Your task to perform on an android device: Clear all items from cart on ebay.com. Search for alienware area 51 on ebay.com, select the first entry, and add it to the cart. Image 0: 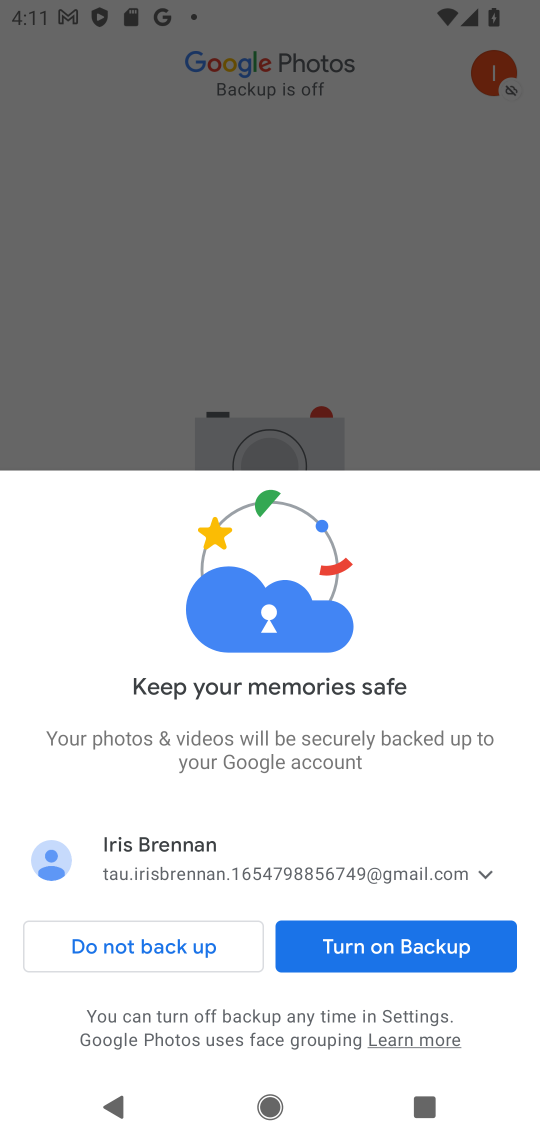
Step 0: press home button
Your task to perform on an android device: Clear all items from cart on ebay.com. Search for alienware area 51 on ebay.com, select the first entry, and add it to the cart. Image 1: 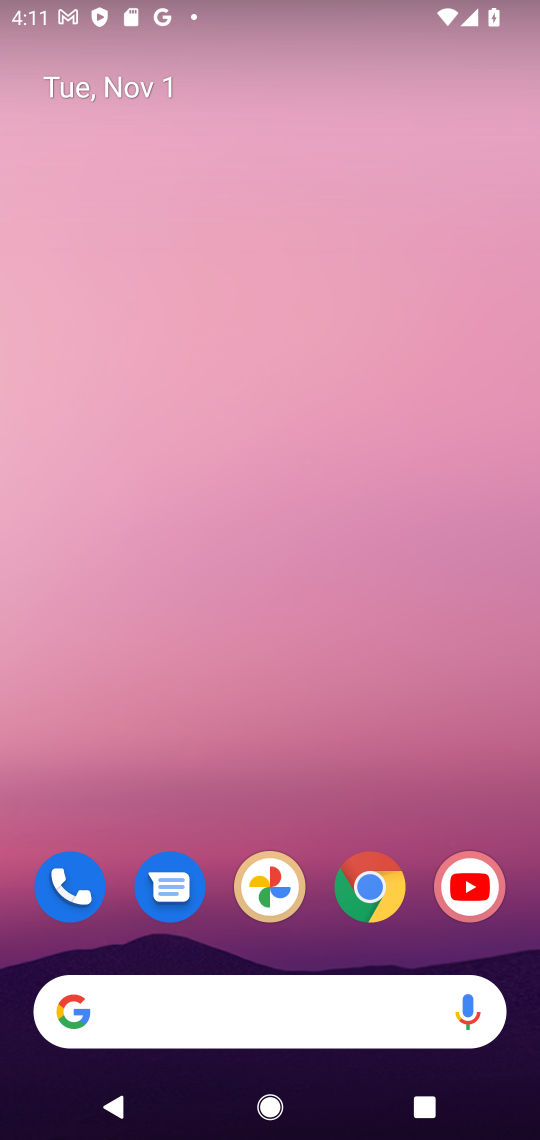
Step 1: drag from (333, 956) to (326, 80)
Your task to perform on an android device: Clear all items from cart on ebay.com. Search for alienware area 51 on ebay.com, select the first entry, and add it to the cart. Image 2: 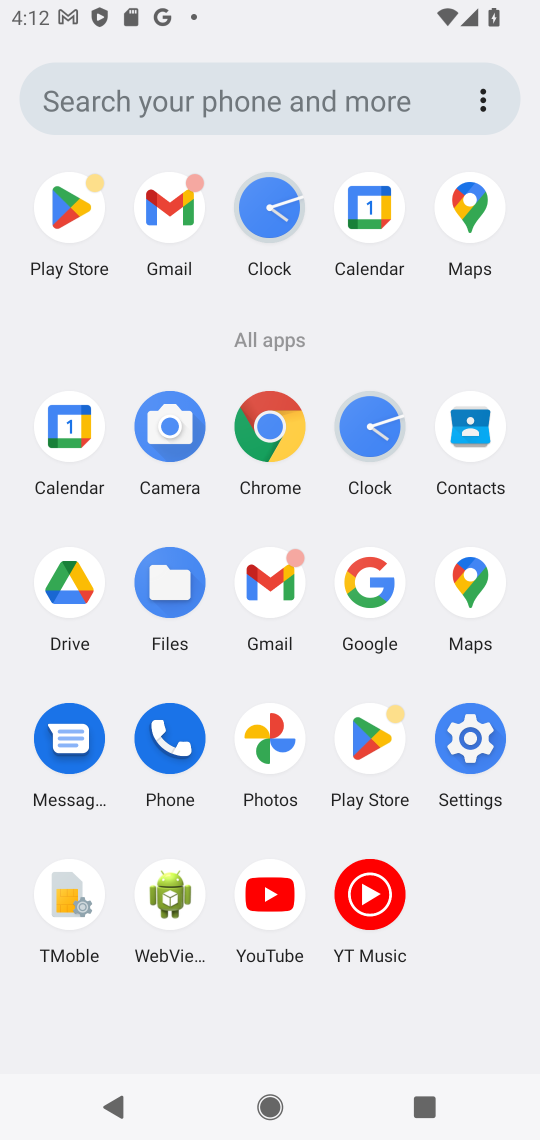
Step 2: click (269, 420)
Your task to perform on an android device: Clear all items from cart on ebay.com. Search for alienware area 51 on ebay.com, select the first entry, and add it to the cart. Image 3: 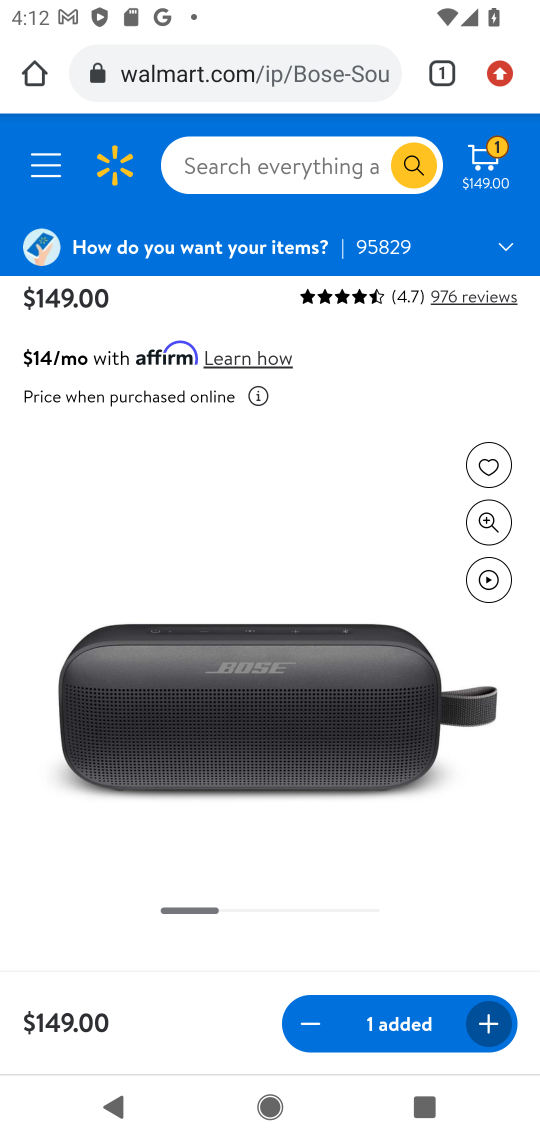
Step 3: click (323, 72)
Your task to perform on an android device: Clear all items from cart on ebay.com. Search for alienware area 51 on ebay.com, select the first entry, and add it to the cart. Image 4: 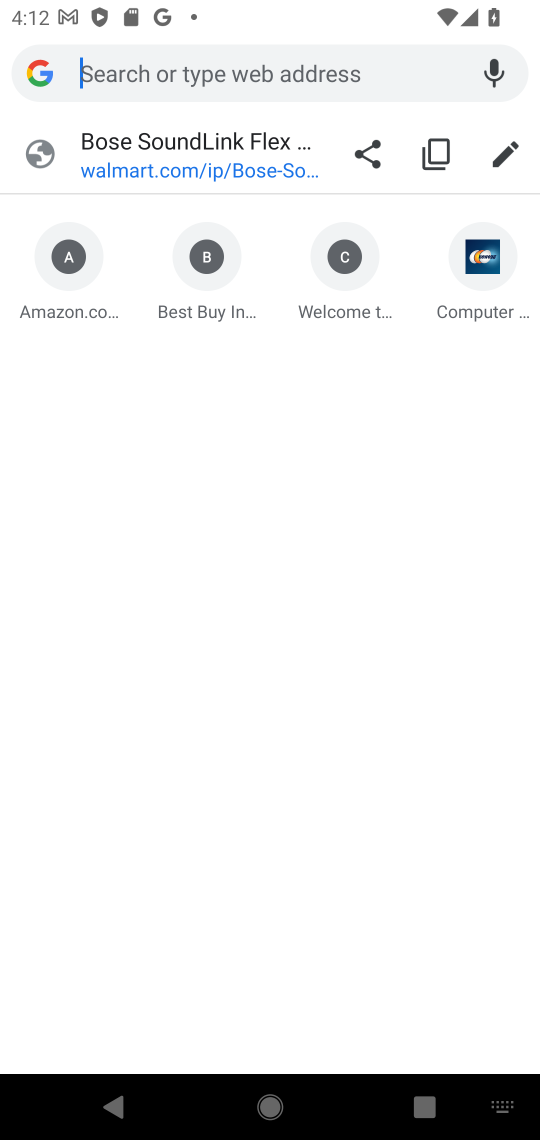
Step 4: type "ebay.com"
Your task to perform on an android device: Clear all items from cart on ebay.com. Search for alienware area 51 on ebay.com, select the first entry, and add it to the cart. Image 5: 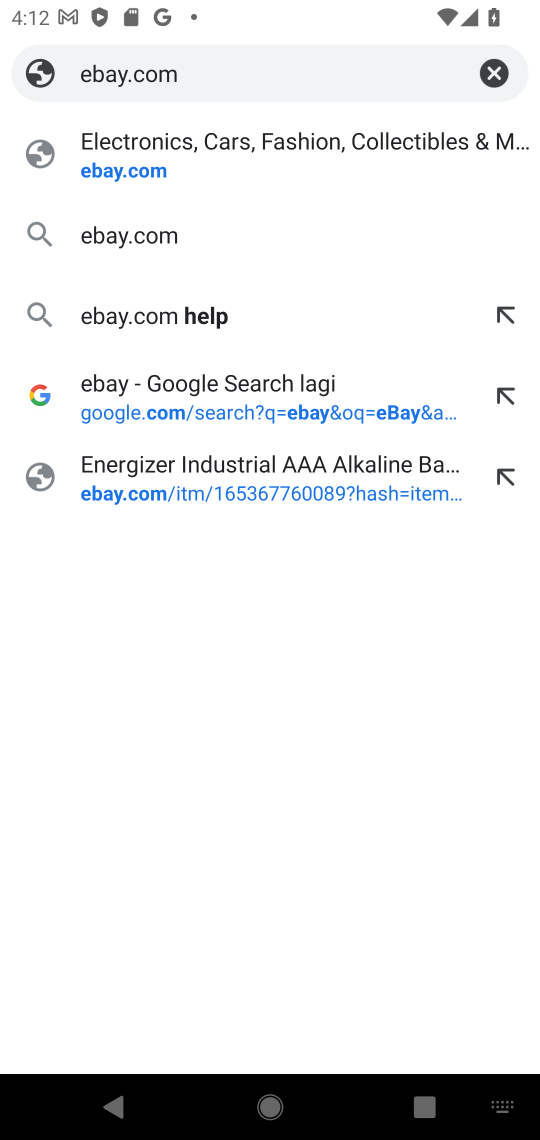
Step 5: press enter
Your task to perform on an android device: Clear all items from cart on ebay.com. Search for alienware area 51 on ebay.com, select the first entry, and add it to the cart. Image 6: 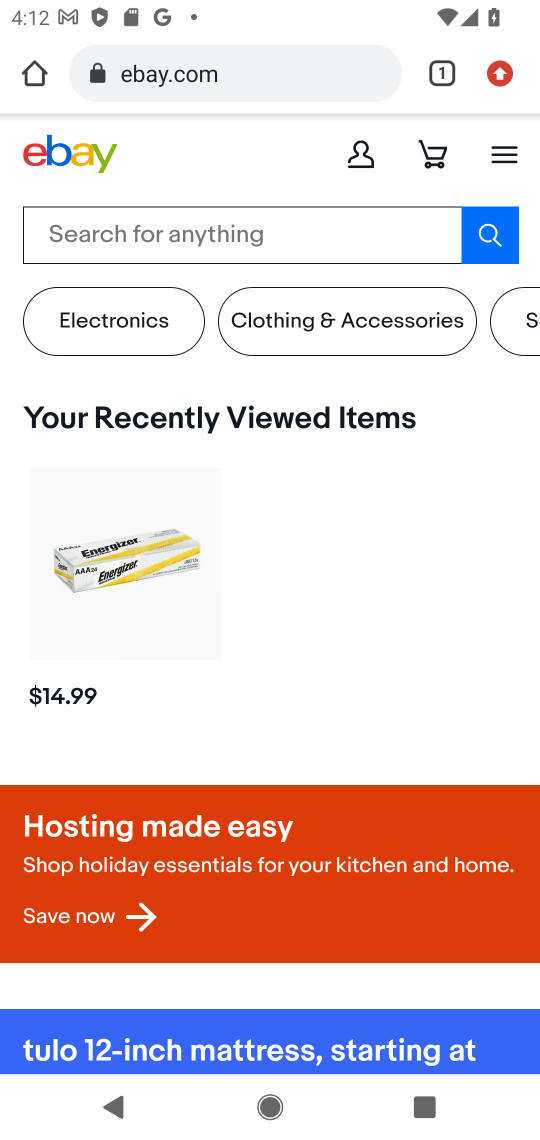
Step 6: click (434, 146)
Your task to perform on an android device: Clear all items from cart on ebay.com. Search for alienware area 51 on ebay.com, select the first entry, and add it to the cart. Image 7: 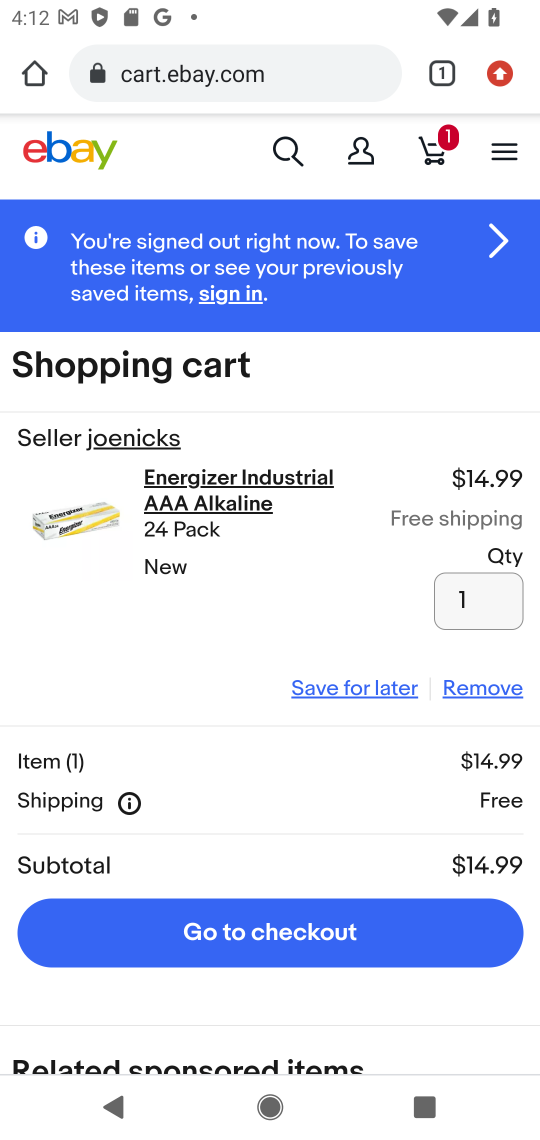
Step 7: click (474, 691)
Your task to perform on an android device: Clear all items from cart on ebay.com. Search for alienware area 51 on ebay.com, select the first entry, and add it to the cart. Image 8: 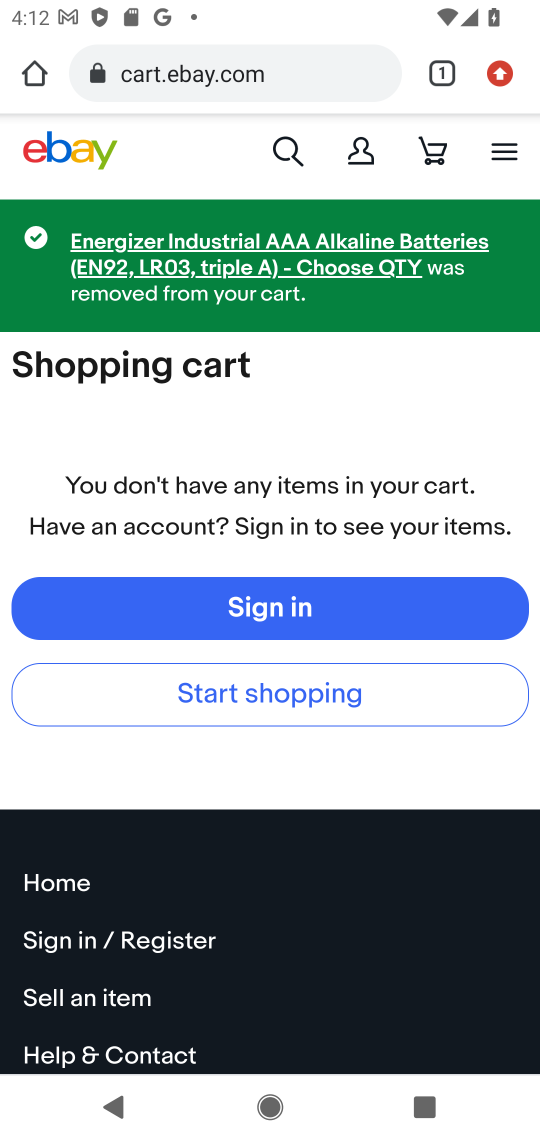
Step 8: click (280, 144)
Your task to perform on an android device: Clear all items from cart on ebay.com. Search for alienware area 51 on ebay.com, select the first entry, and add it to the cart. Image 9: 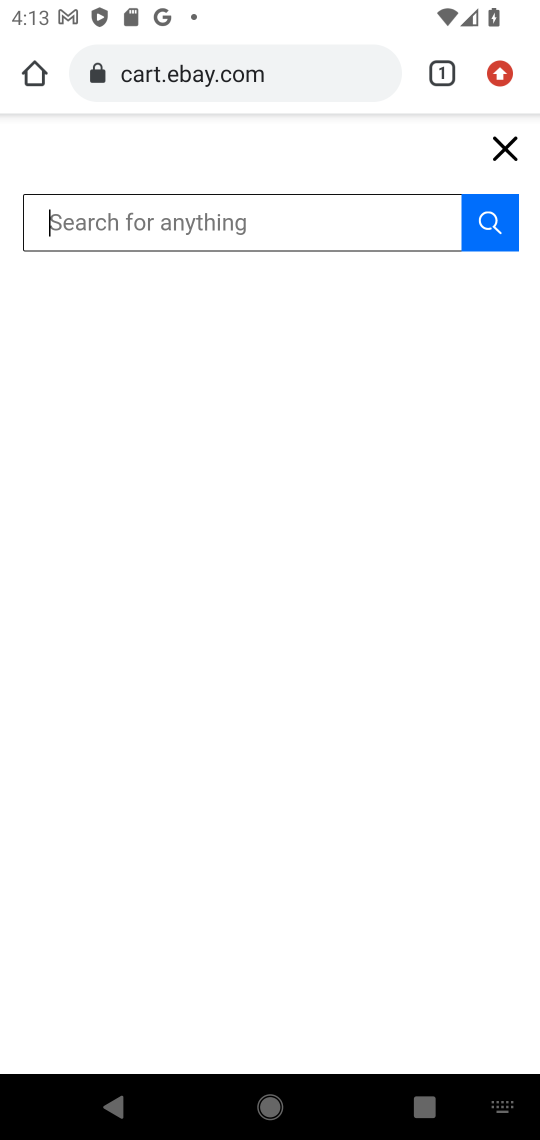
Step 9: type "alienware area 51"
Your task to perform on an android device: Clear all items from cart on ebay.com. Search for alienware area 51 on ebay.com, select the first entry, and add it to the cart. Image 10: 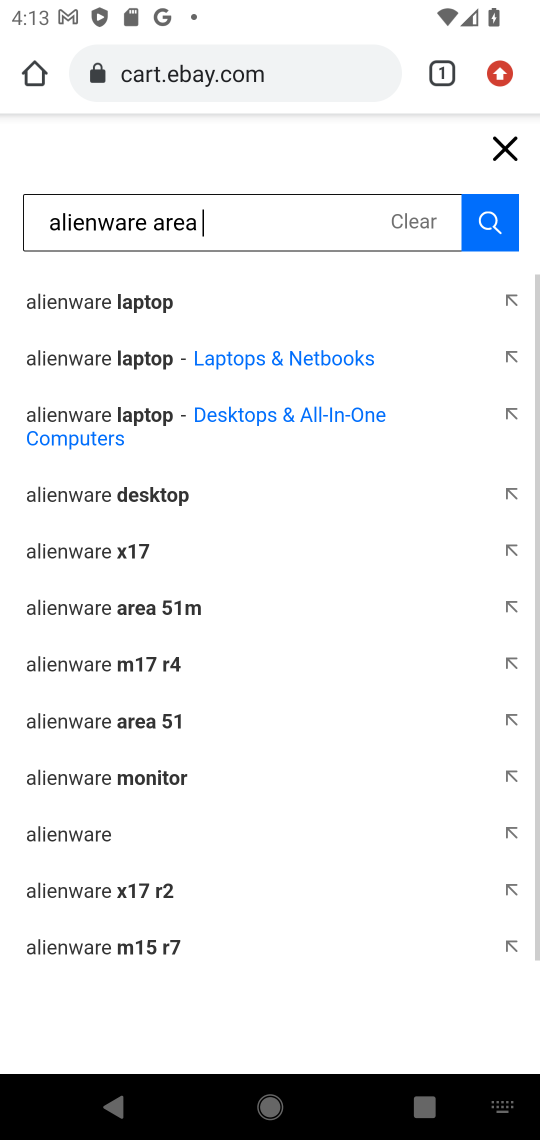
Step 10: press enter
Your task to perform on an android device: Clear all items from cart on ebay.com. Search for alienware area 51 on ebay.com, select the first entry, and add it to the cart. Image 11: 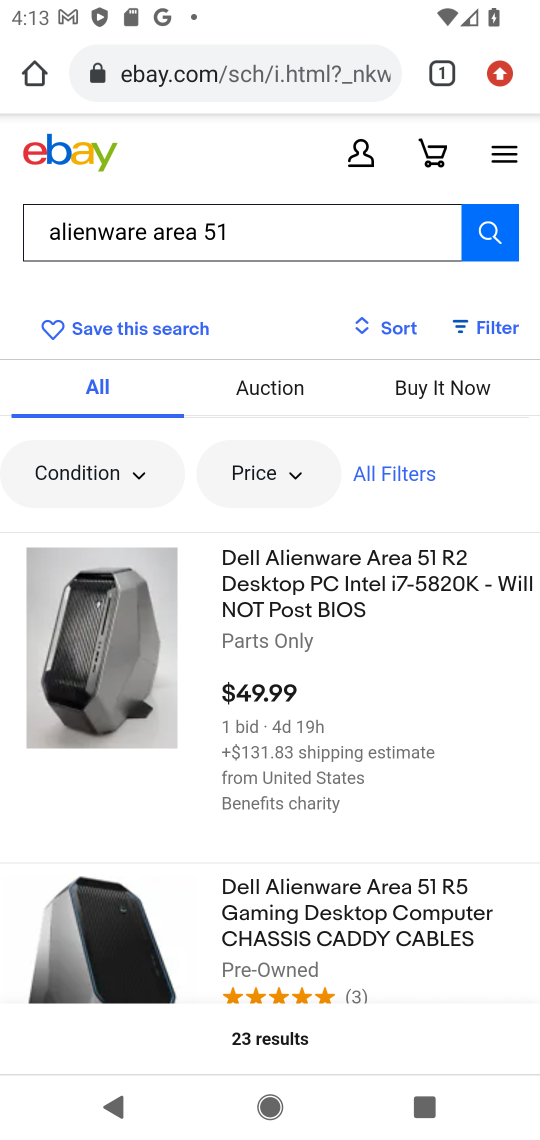
Step 11: drag from (163, 916) to (175, 726)
Your task to perform on an android device: Clear all items from cart on ebay.com. Search for alienware area 51 on ebay.com, select the first entry, and add it to the cart. Image 12: 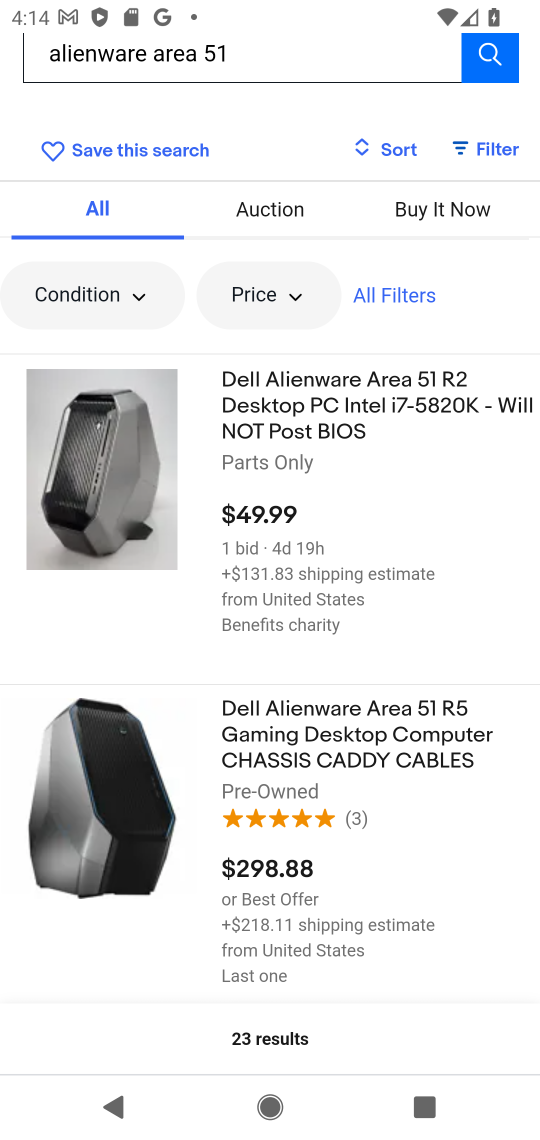
Step 12: drag from (413, 465) to (409, 992)
Your task to perform on an android device: Clear all items from cart on ebay.com. Search for alienware area 51 on ebay.com, select the first entry, and add it to the cart. Image 13: 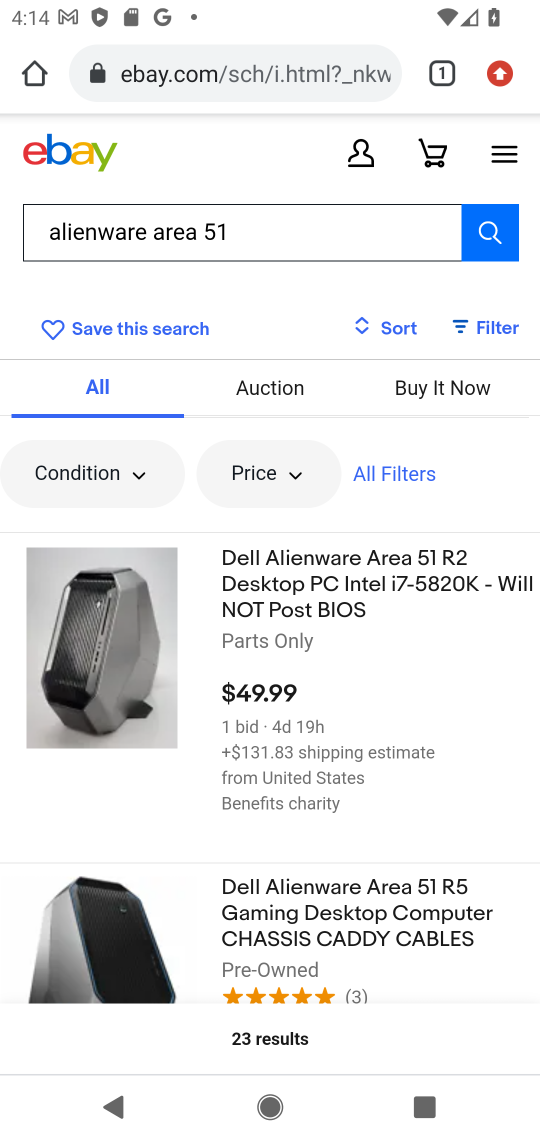
Step 13: click (282, 603)
Your task to perform on an android device: Clear all items from cart on ebay.com. Search for alienware area 51 on ebay.com, select the first entry, and add it to the cart. Image 14: 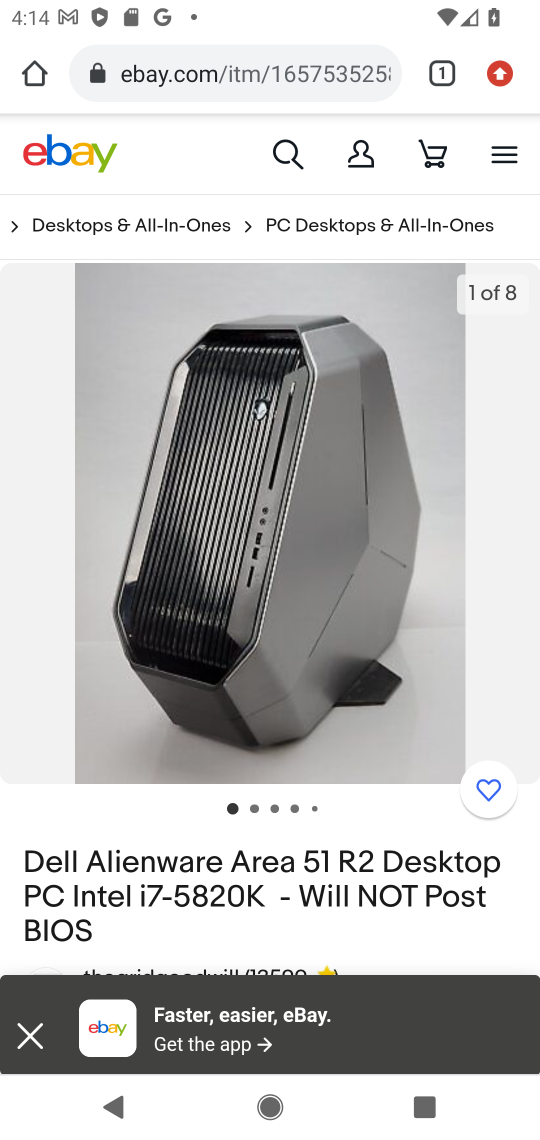
Step 14: task complete